Your task to perform on an android device: turn off smart reply in the gmail app Image 0: 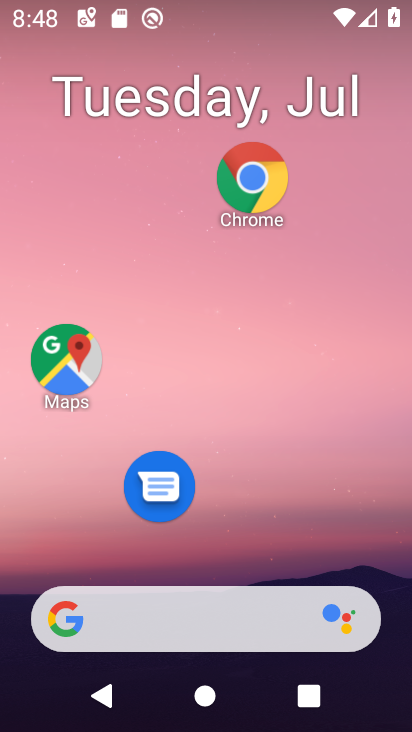
Step 0: drag from (247, 653) to (317, 150)
Your task to perform on an android device: turn off smart reply in the gmail app Image 1: 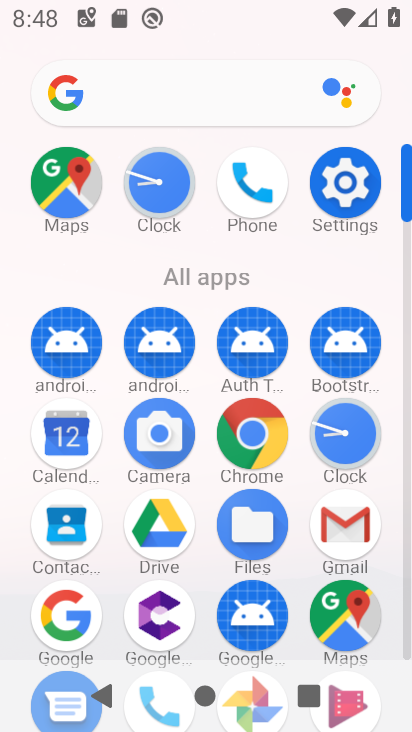
Step 1: click (336, 554)
Your task to perform on an android device: turn off smart reply in the gmail app Image 2: 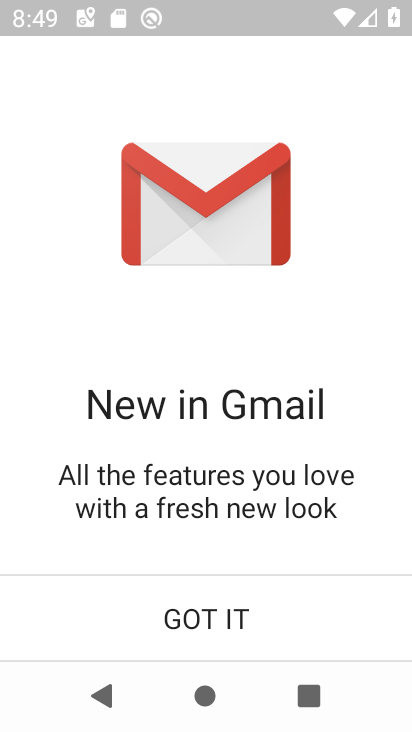
Step 2: click (215, 608)
Your task to perform on an android device: turn off smart reply in the gmail app Image 3: 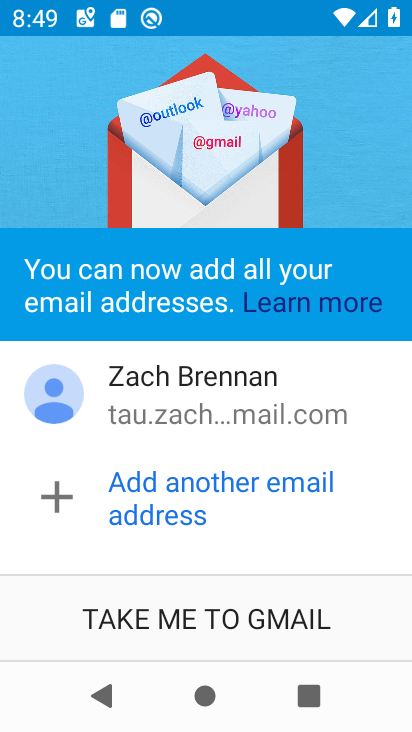
Step 3: click (298, 642)
Your task to perform on an android device: turn off smart reply in the gmail app Image 4: 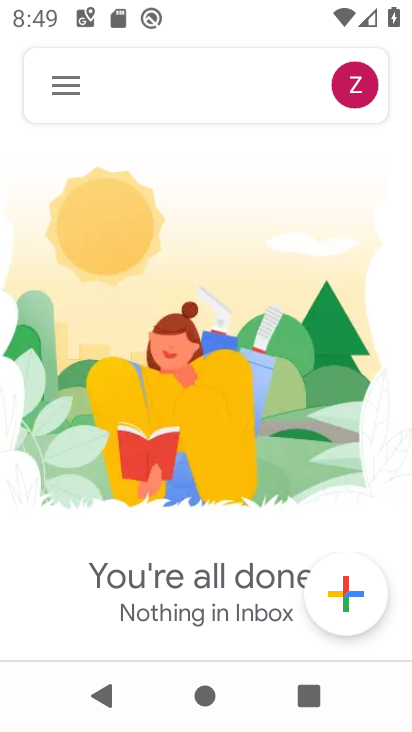
Step 4: click (76, 102)
Your task to perform on an android device: turn off smart reply in the gmail app Image 5: 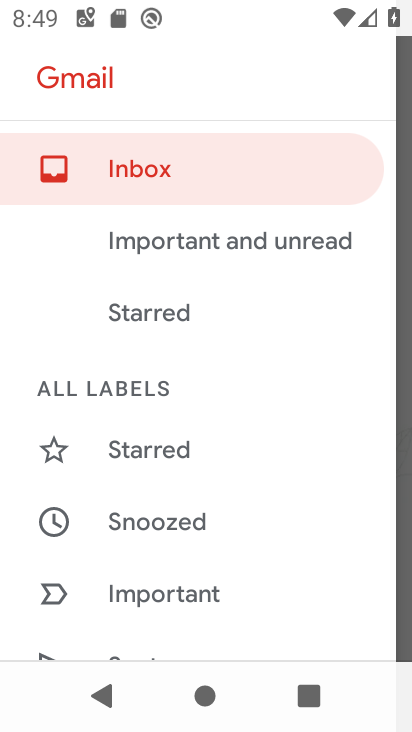
Step 5: drag from (117, 515) to (241, 18)
Your task to perform on an android device: turn off smart reply in the gmail app Image 6: 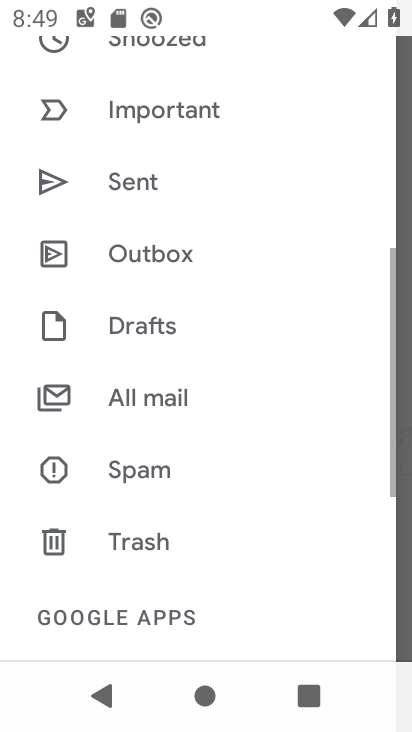
Step 6: drag from (155, 579) to (215, 159)
Your task to perform on an android device: turn off smart reply in the gmail app Image 7: 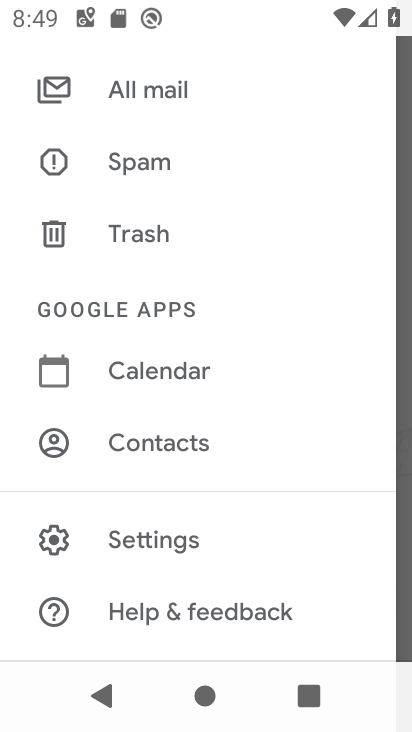
Step 7: click (149, 545)
Your task to perform on an android device: turn off smart reply in the gmail app Image 8: 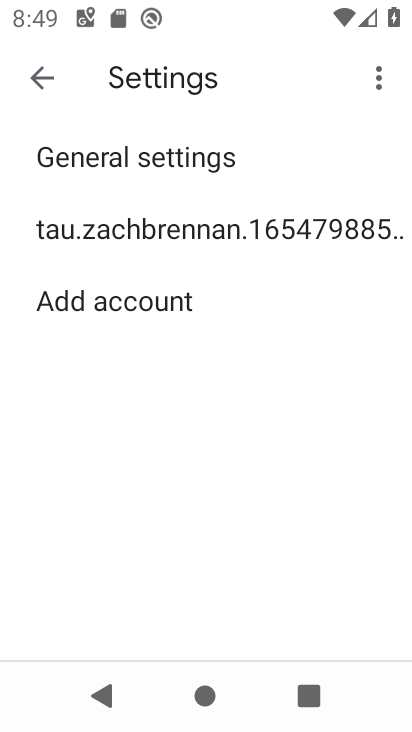
Step 8: click (129, 251)
Your task to perform on an android device: turn off smart reply in the gmail app Image 9: 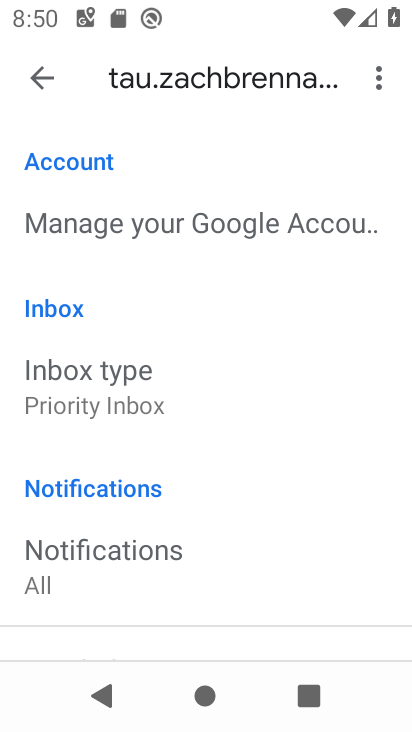
Step 9: drag from (248, 518) to (249, 85)
Your task to perform on an android device: turn off smart reply in the gmail app Image 10: 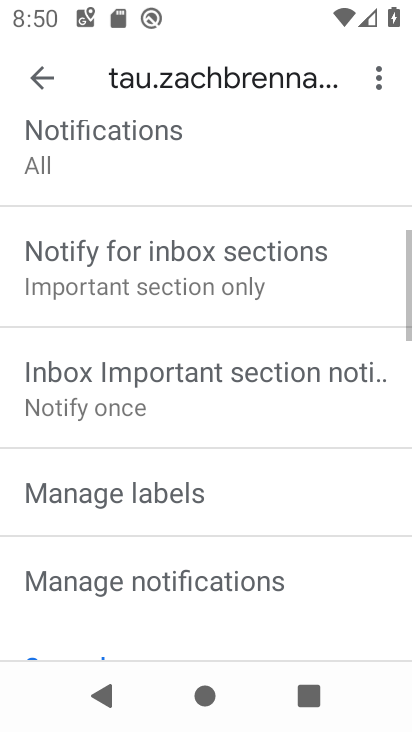
Step 10: drag from (177, 569) to (236, 128)
Your task to perform on an android device: turn off smart reply in the gmail app Image 11: 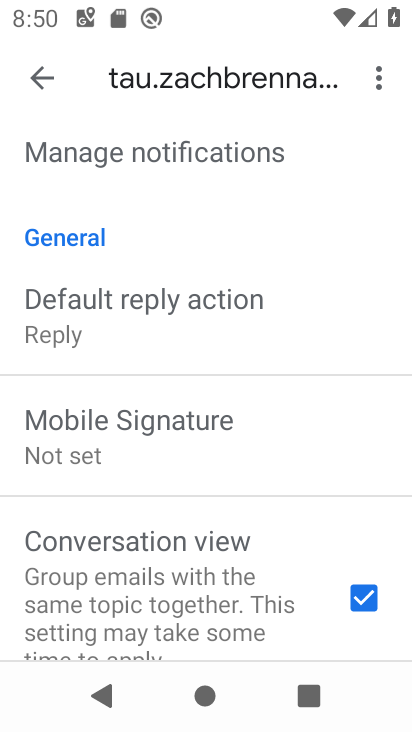
Step 11: drag from (155, 547) to (244, 105)
Your task to perform on an android device: turn off smart reply in the gmail app Image 12: 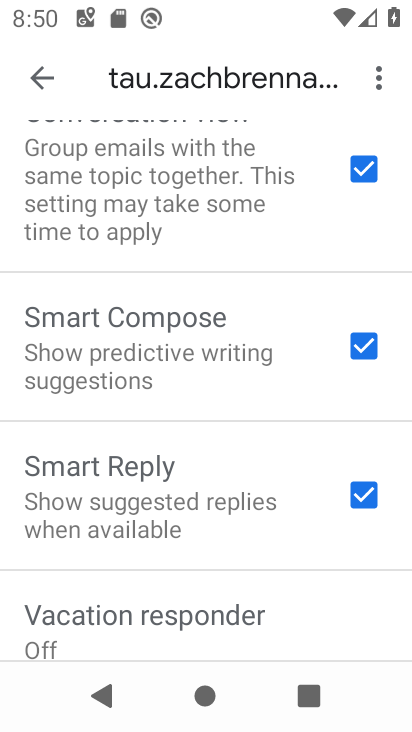
Step 12: drag from (197, 470) to (370, 609)
Your task to perform on an android device: turn off smart reply in the gmail app Image 13: 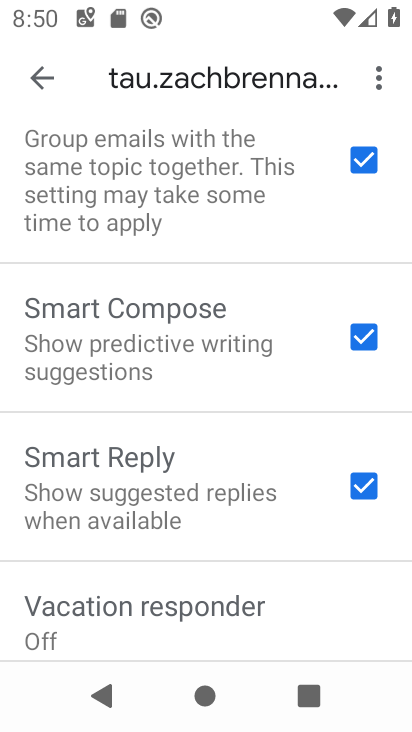
Step 13: click (375, 496)
Your task to perform on an android device: turn off smart reply in the gmail app Image 14: 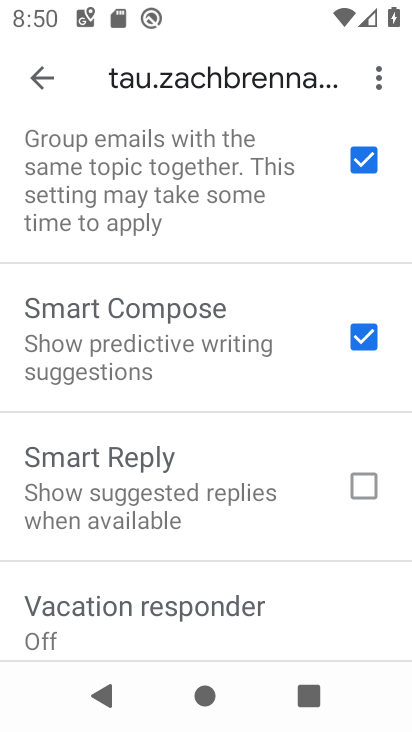
Step 14: task complete